Your task to perform on an android device: Go to eBay Image 0: 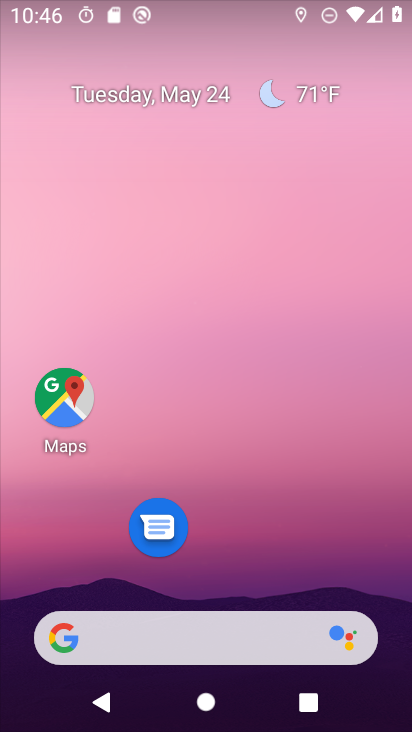
Step 0: drag from (228, 558) to (207, 109)
Your task to perform on an android device: Go to eBay Image 1: 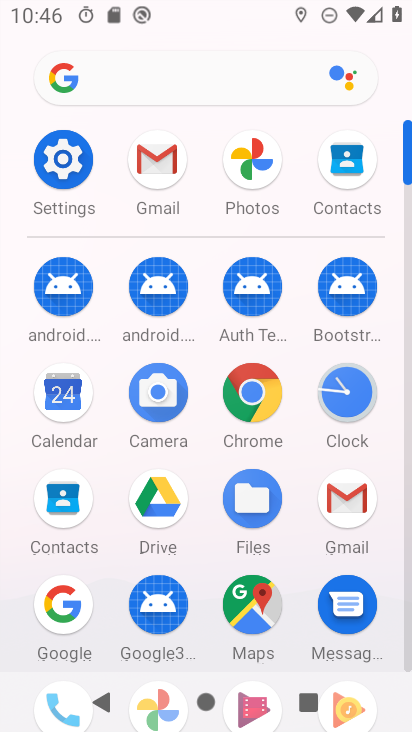
Step 1: click (54, 607)
Your task to perform on an android device: Go to eBay Image 2: 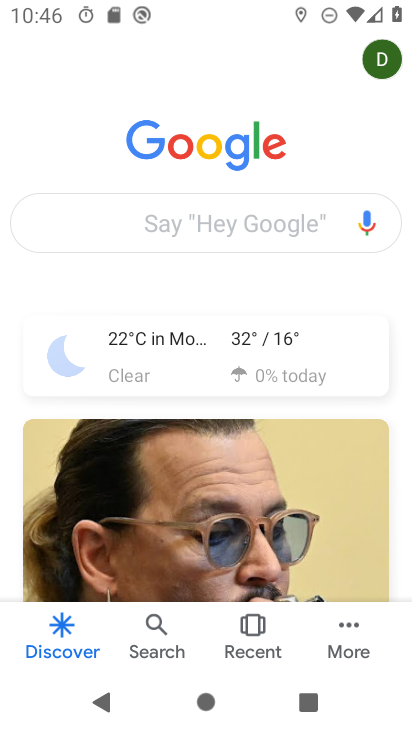
Step 2: click (187, 209)
Your task to perform on an android device: Go to eBay Image 3: 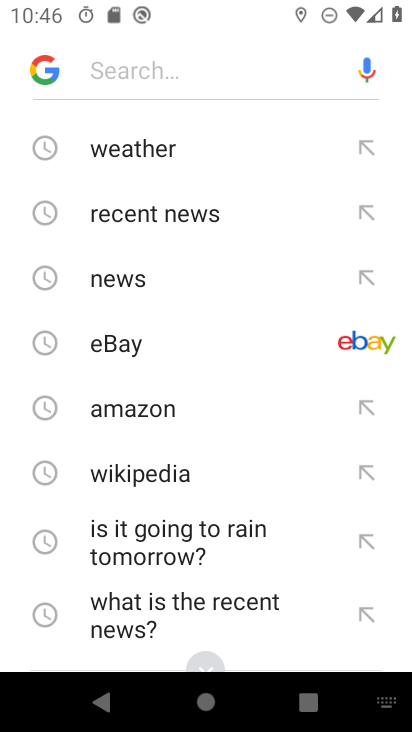
Step 3: click (122, 355)
Your task to perform on an android device: Go to eBay Image 4: 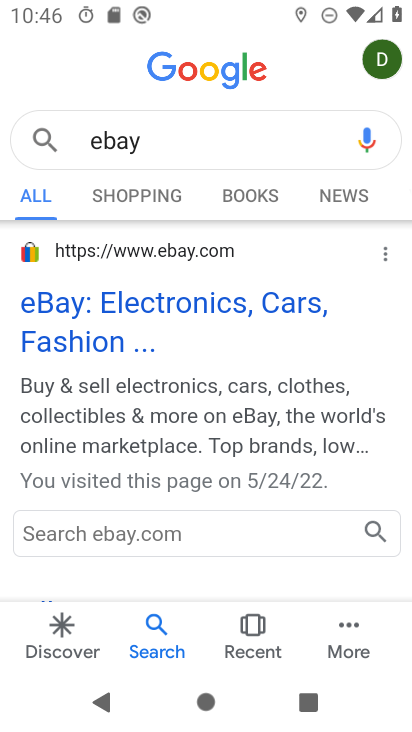
Step 4: task complete